Your task to perform on an android device: Search for asus rog on walmart, select the first entry, and add it to the cart. Image 0: 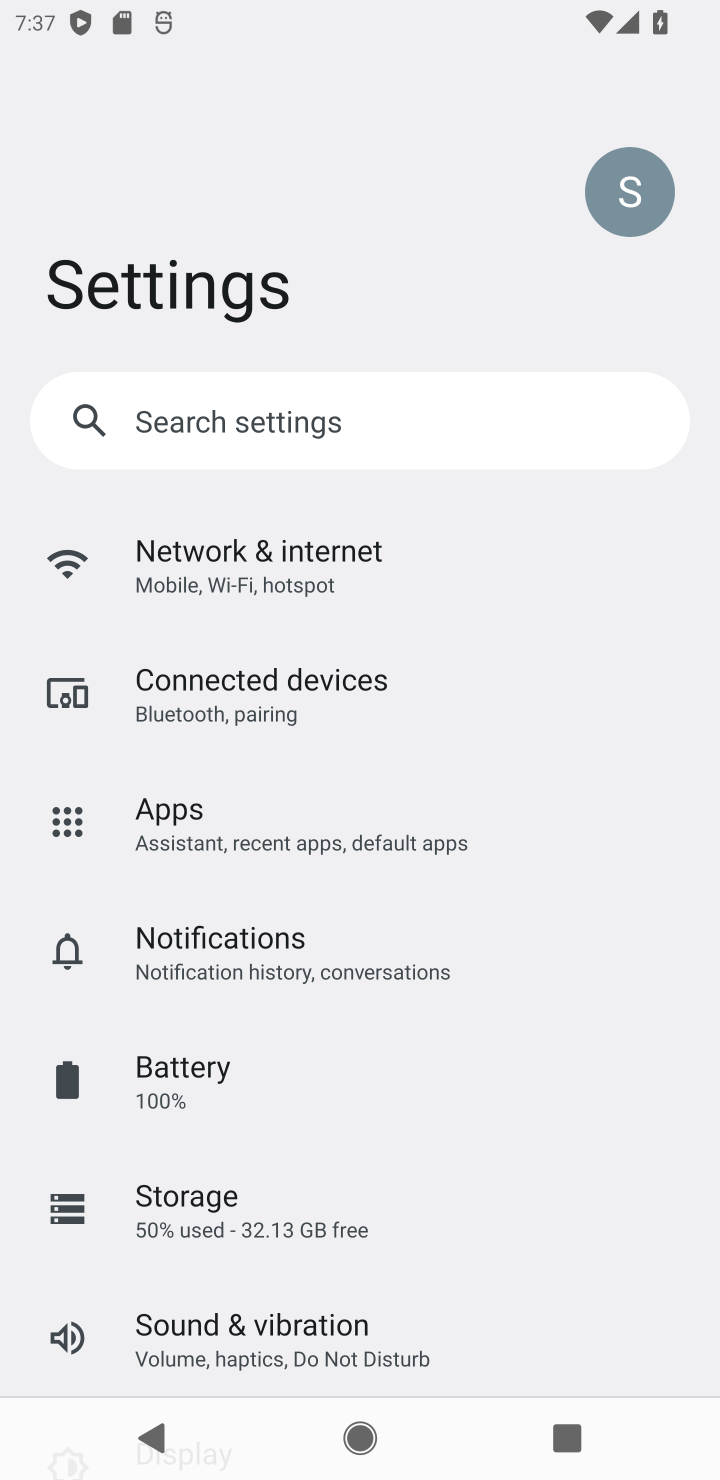
Step 0: press home button
Your task to perform on an android device: Search for asus rog on walmart, select the first entry, and add it to the cart. Image 1: 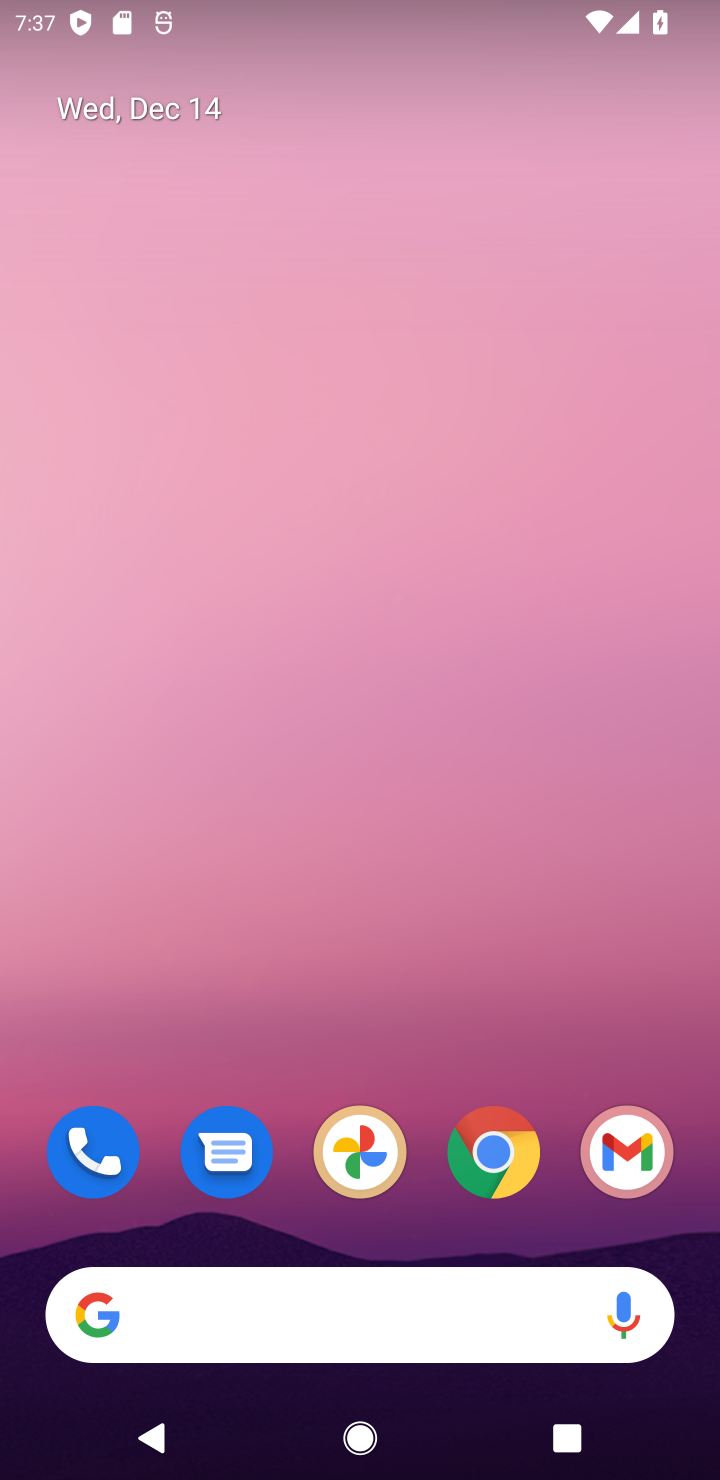
Step 1: click (501, 1153)
Your task to perform on an android device: Search for asus rog on walmart, select the first entry, and add it to the cart. Image 2: 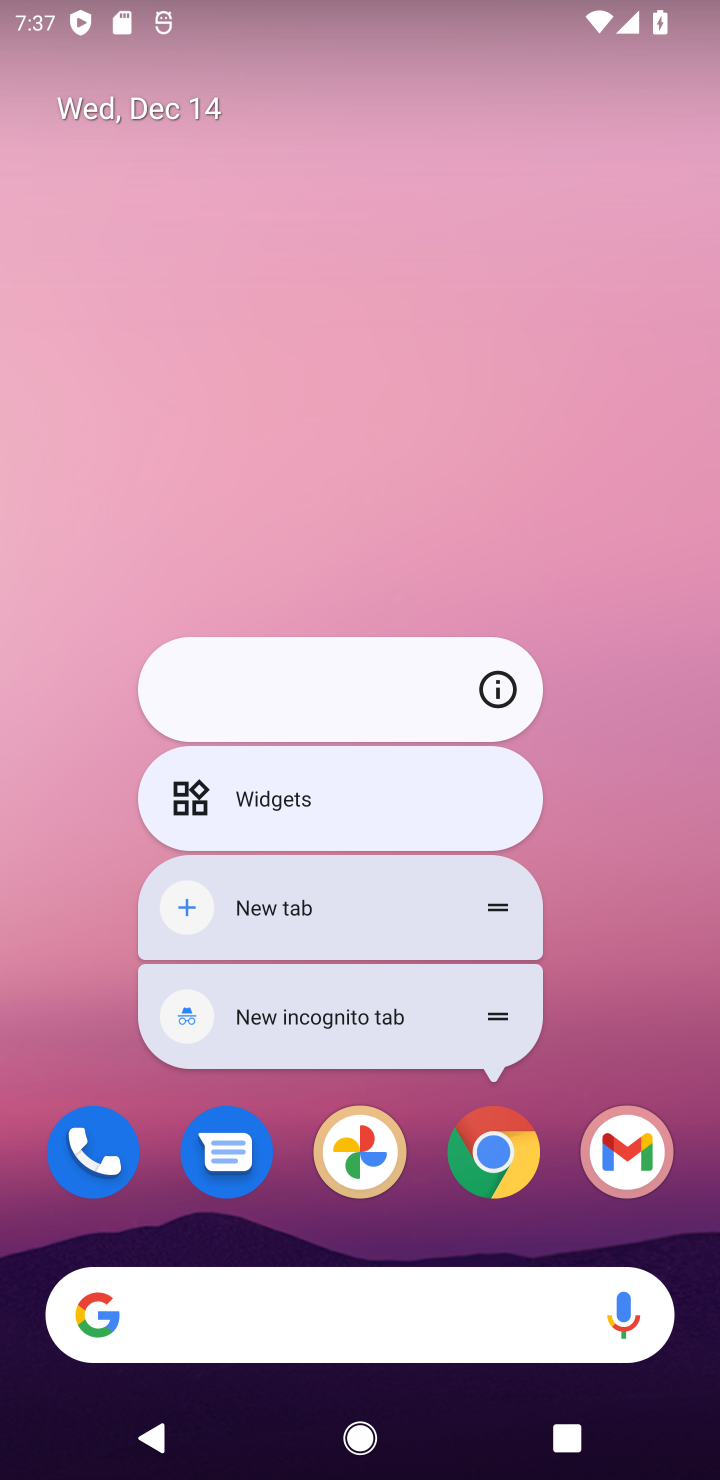
Step 2: click (501, 1156)
Your task to perform on an android device: Search for asus rog on walmart, select the first entry, and add it to the cart. Image 3: 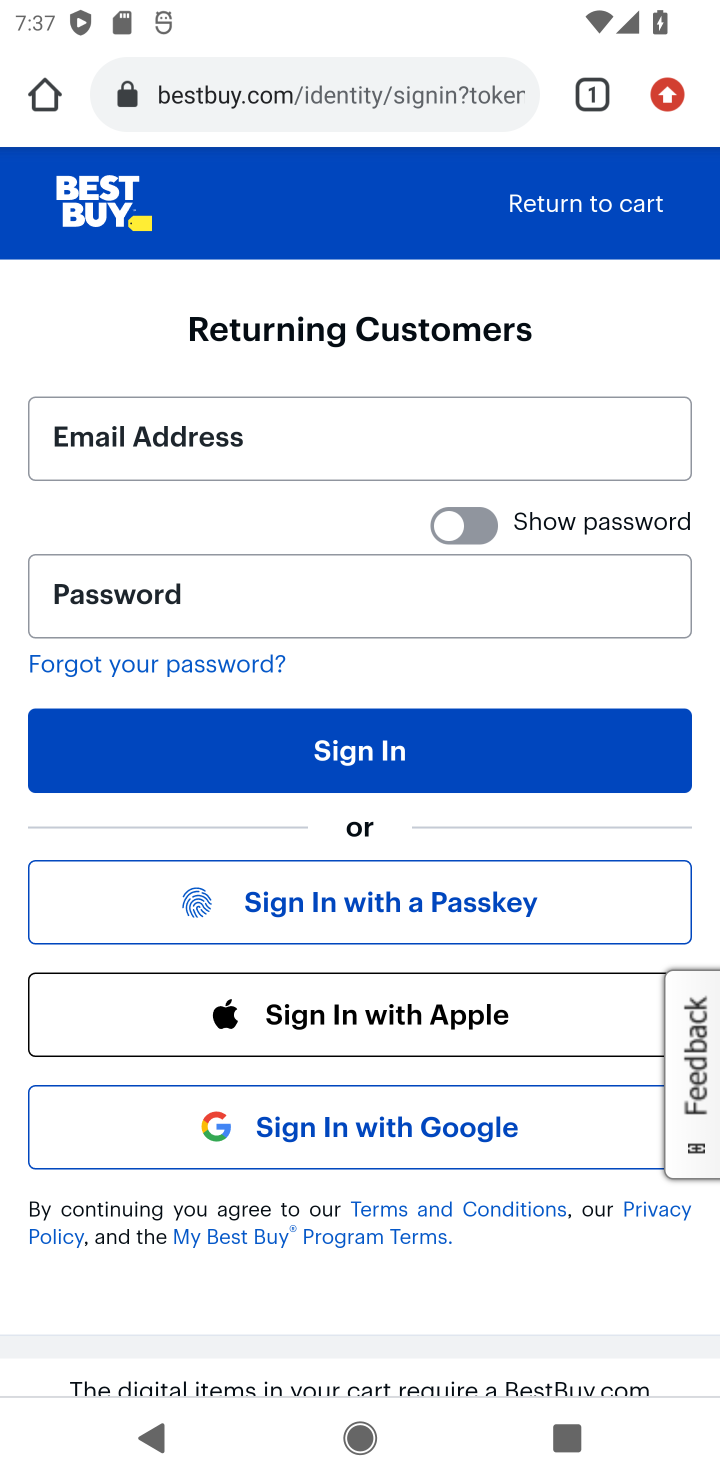
Step 3: click (298, 96)
Your task to perform on an android device: Search for asus rog on walmart, select the first entry, and add it to the cart. Image 4: 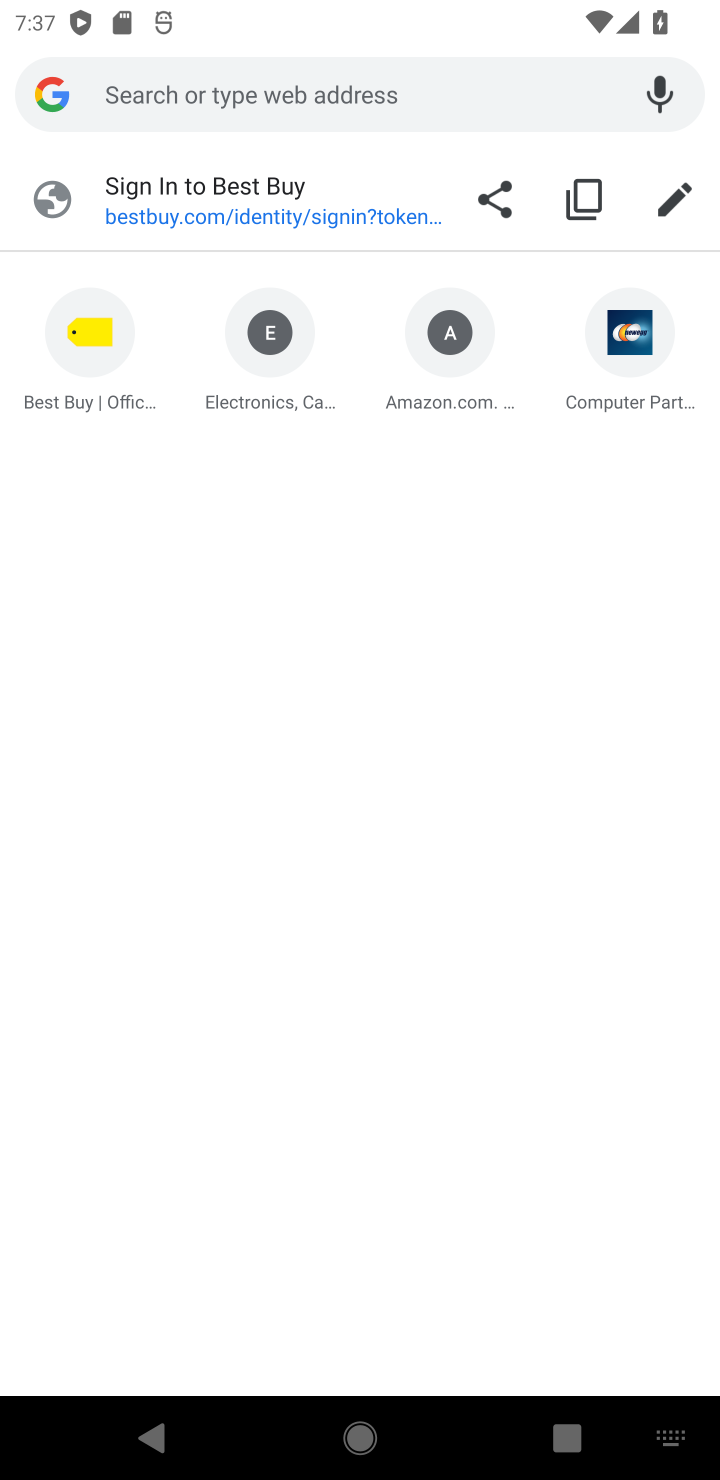
Step 4: type "walmart.com"
Your task to perform on an android device: Search for asus rog on walmart, select the first entry, and add it to the cart. Image 5: 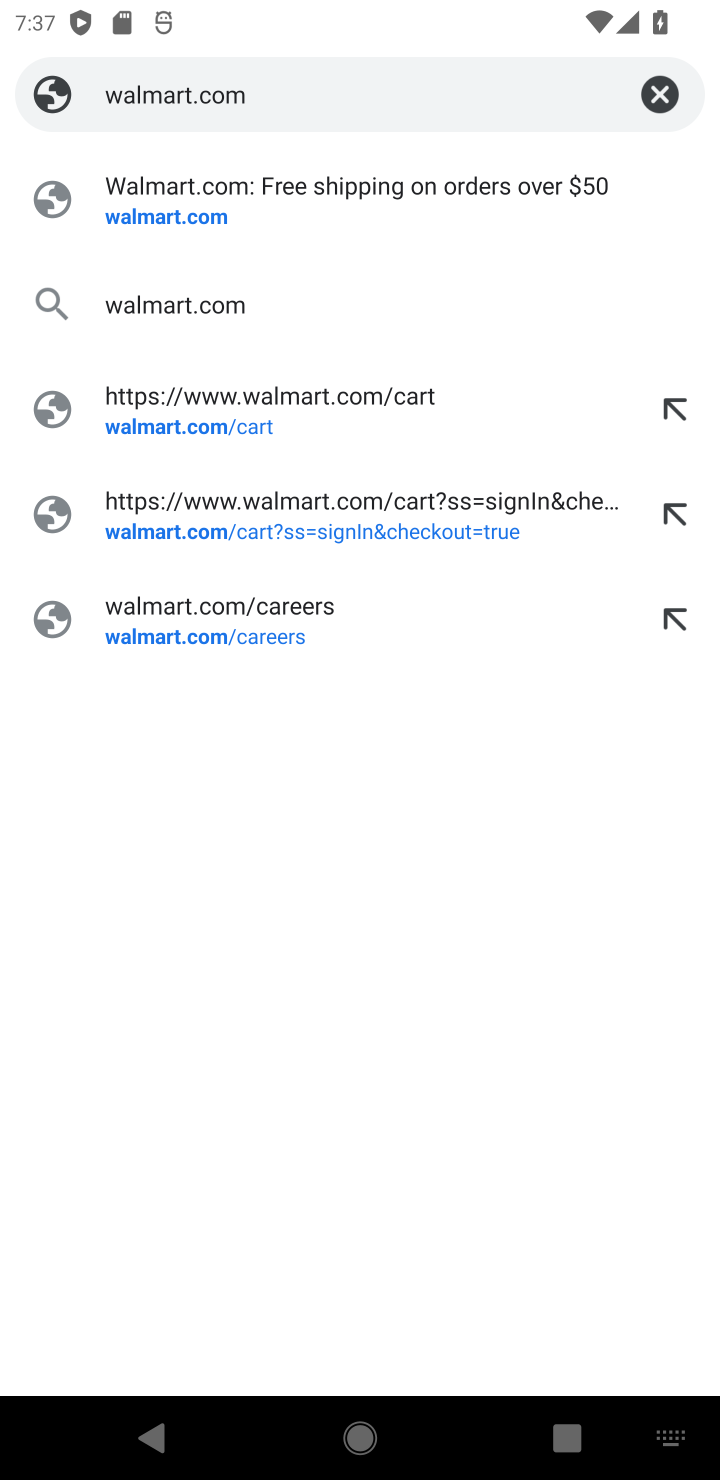
Step 5: click (152, 226)
Your task to perform on an android device: Search for asus rog on walmart, select the first entry, and add it to the cart. Image 6: 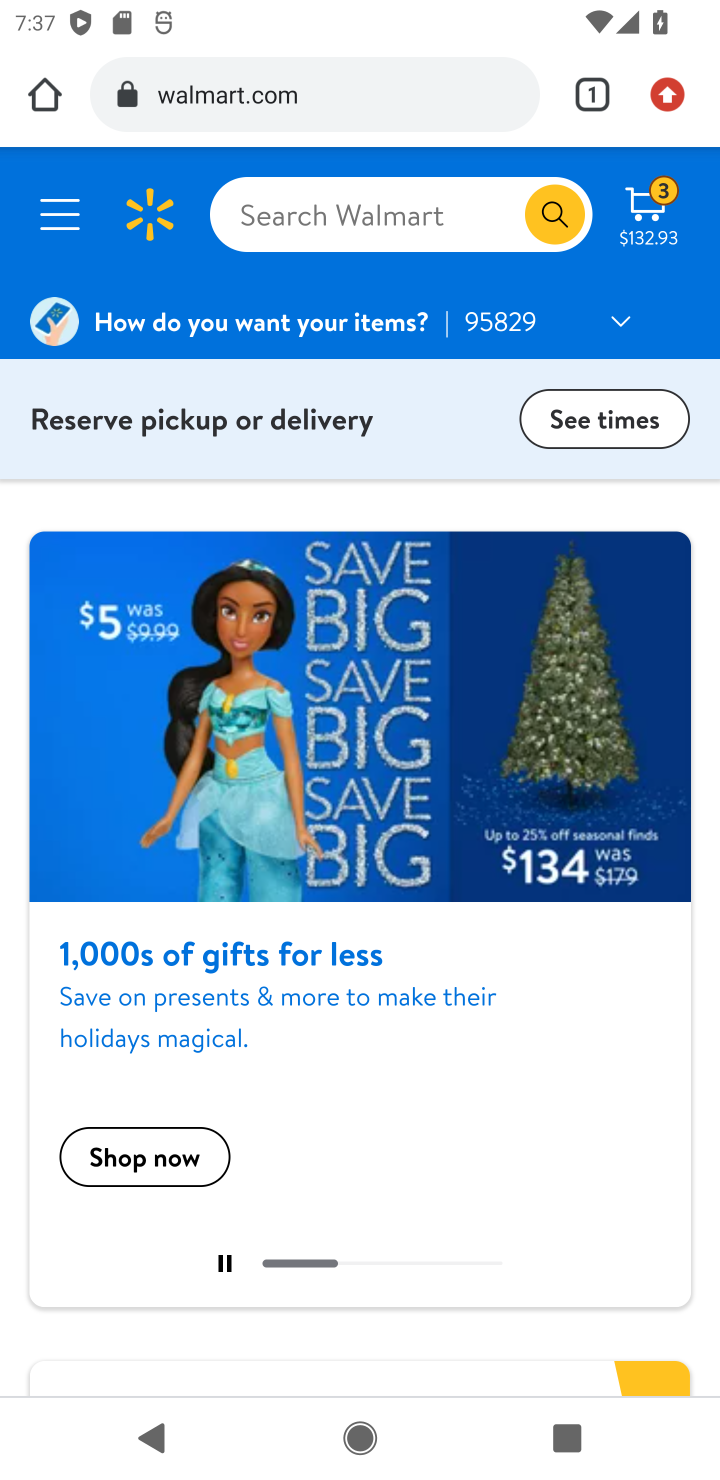
Step 6: click (343, 212)
Your task to perform on an android device: Search for asus rog on walmart, select the first entry, and add it to the cart. Image 7: 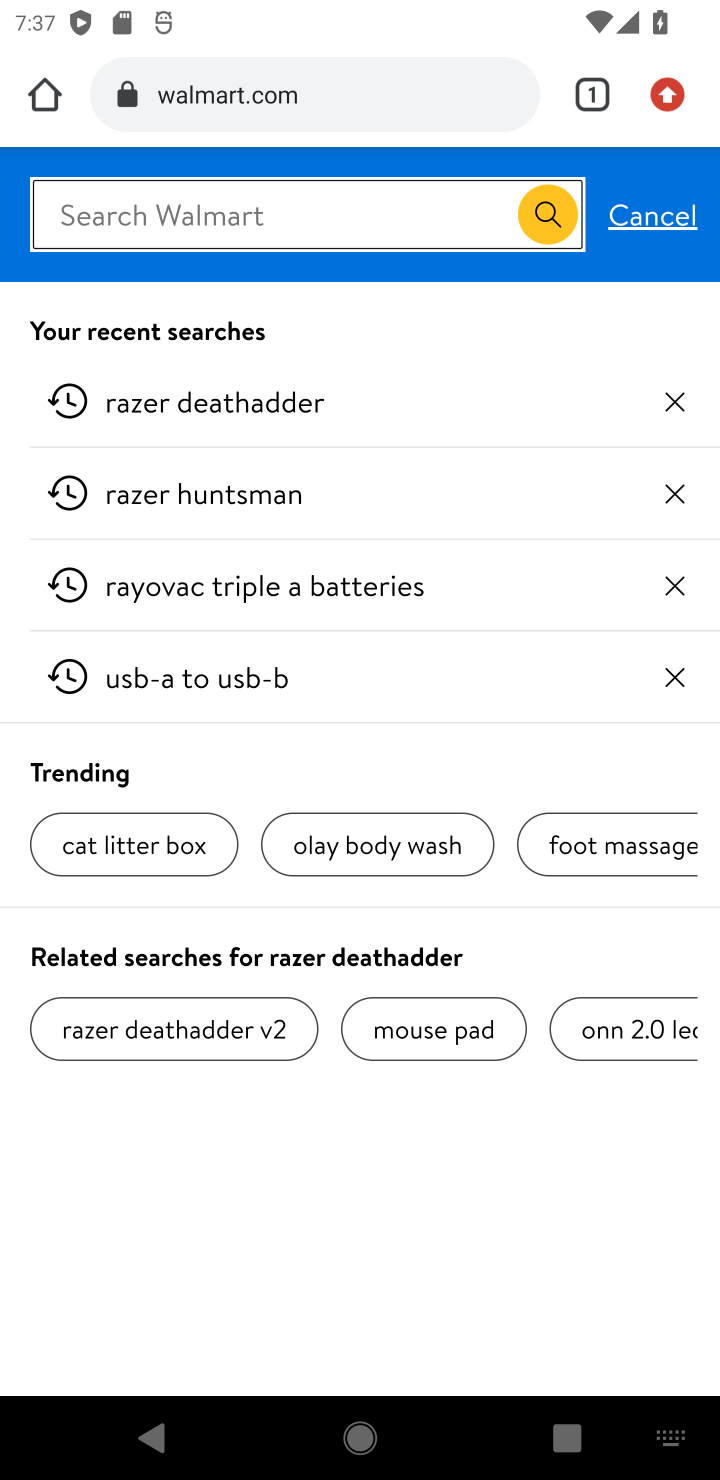
Step 7: type "asus rog"
Your task to perform on an android device: Search for asus rog on walmart, select the first entry, and add it to the cart. Image 8: 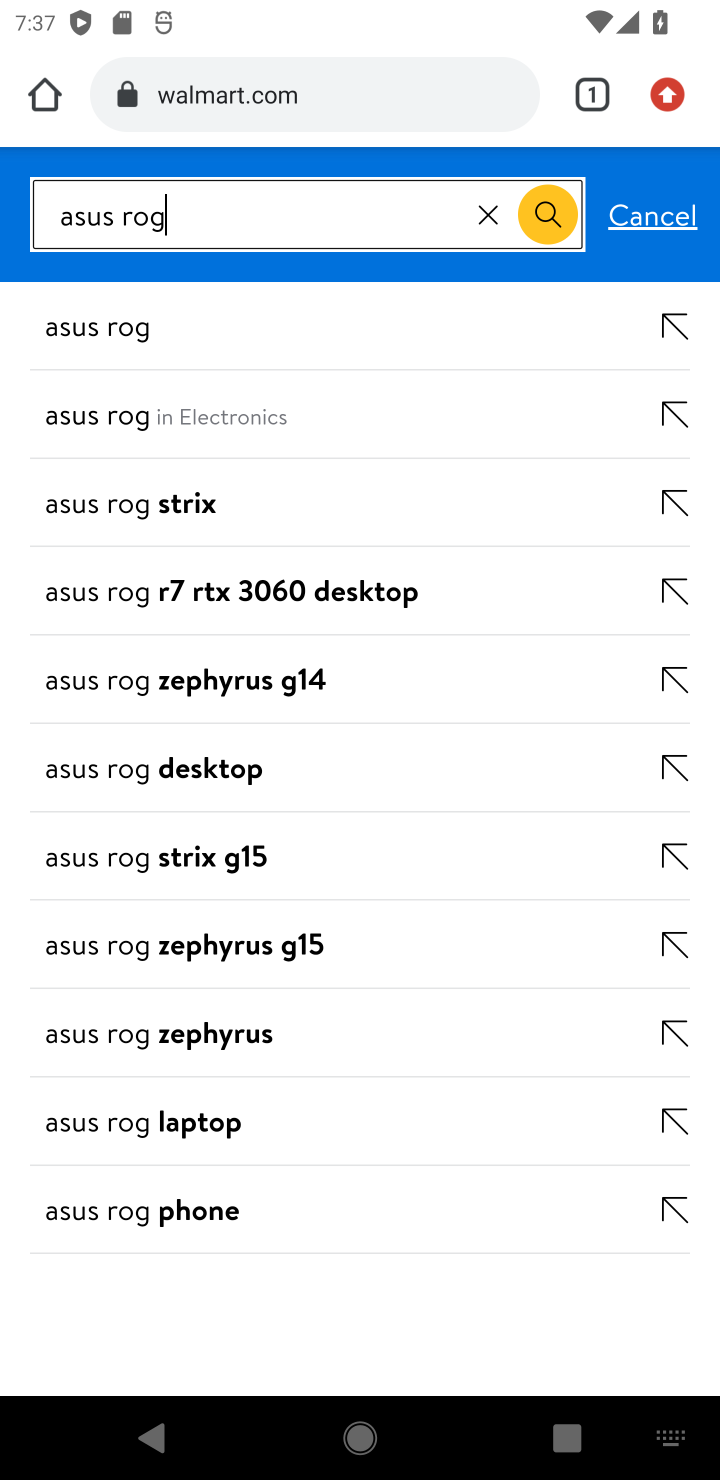
Step 8: click (101, 334)
Your task to perform on an android device: Search for asus rog on walmart, select the first entry, and add it to the cart. Image 9: 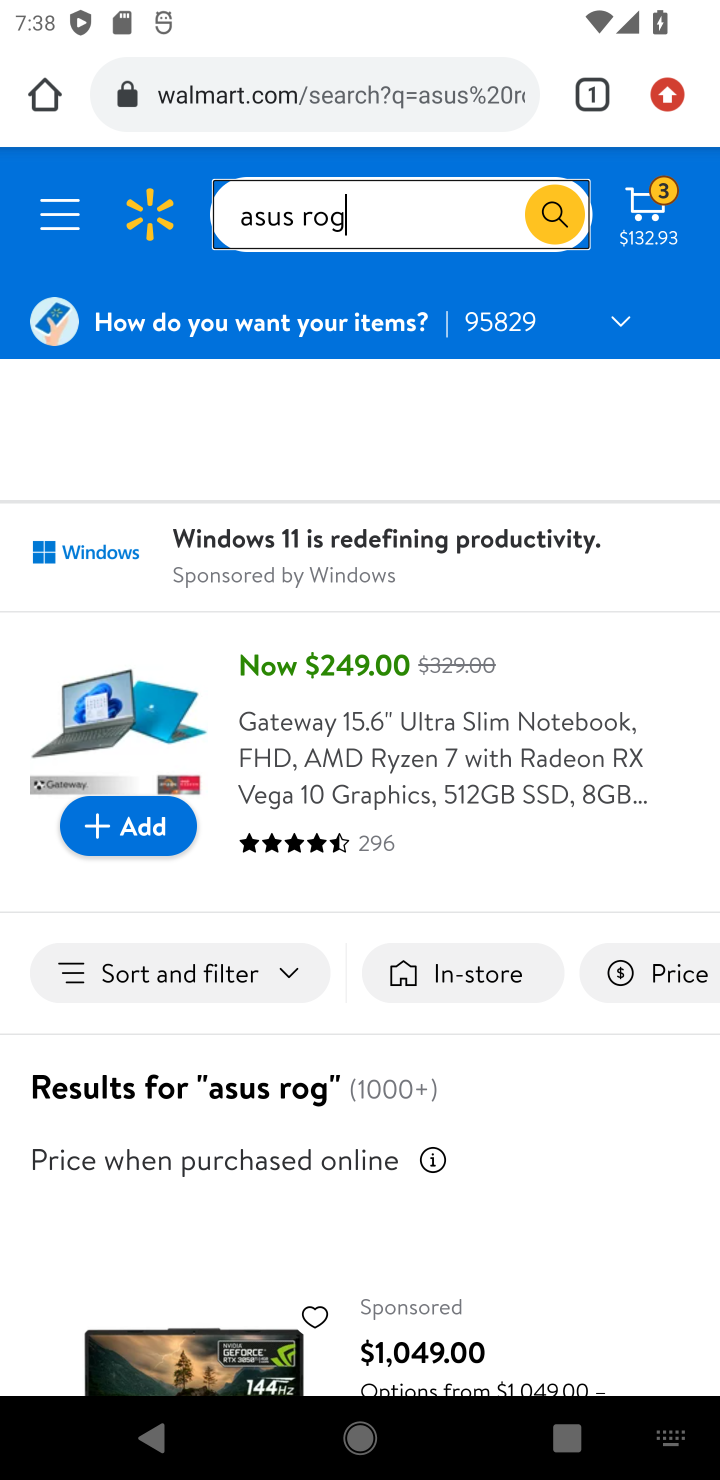
Step 9: task complete